Your task to perform on an android device: set the timer Image 0: 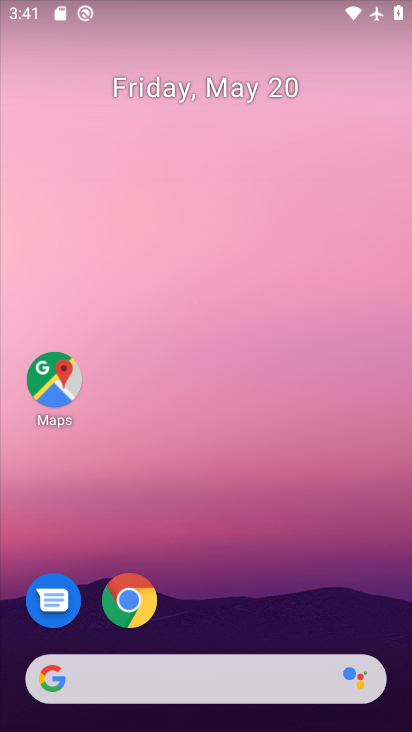
Step 0: drag from (249, 571) to (124, 0)
Your task to perform on an android device: set the timer Image 1: 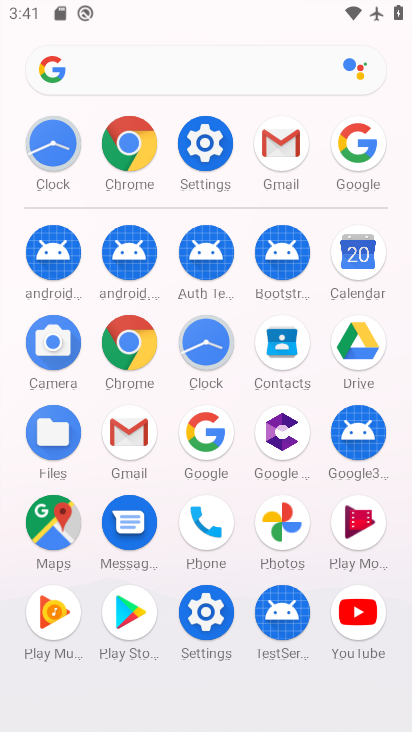
Step 1: click (211, 340)
Your task to perform on an android device: set the timer Image 2: 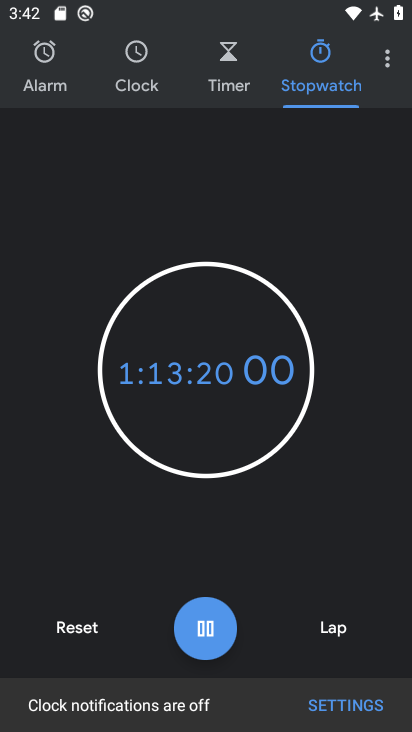
Step 2: click (244, 65)
Your task to perform on an android device: set the timer Image 3: 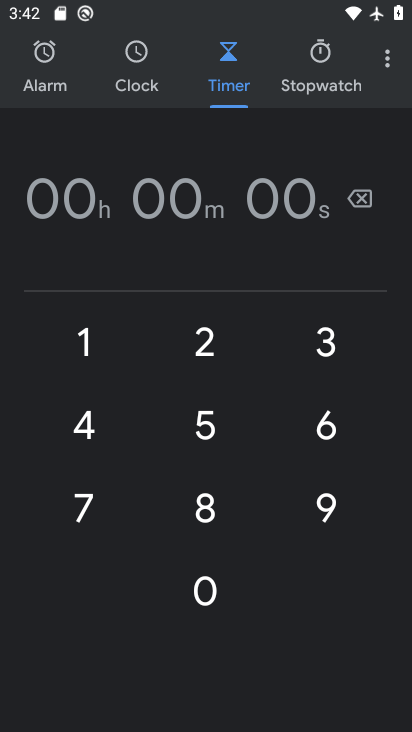
Step 3: click (88, 354)
Your task to perform on an android device: set the timer Image 4: 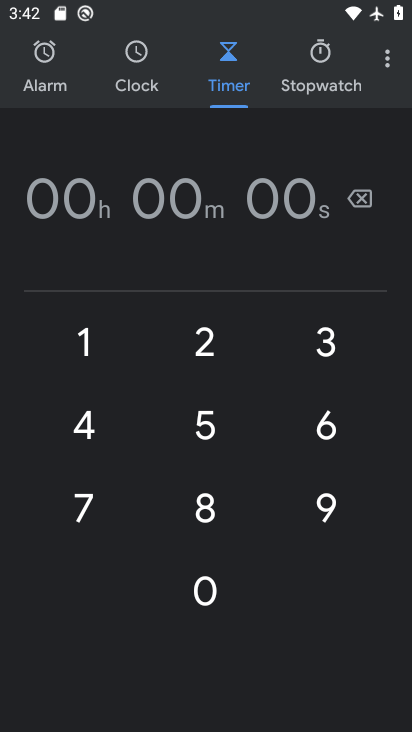
Step 4: click (88, 354)
Your task to perform on an android device: set the timer Image 5: 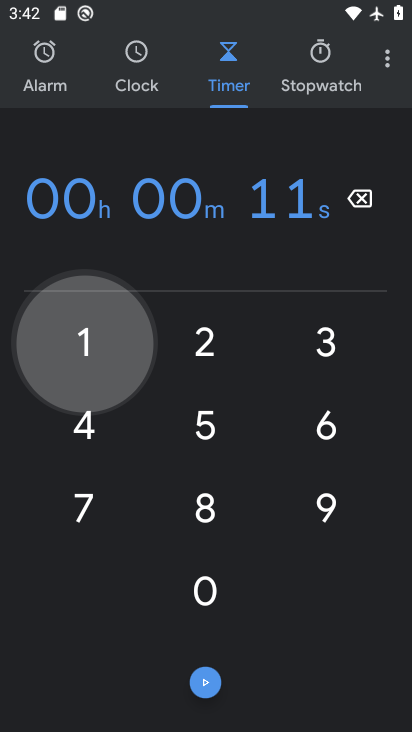
Step 5: click (88, 354)
Your task to perform on an android device: set the timer Image 6: 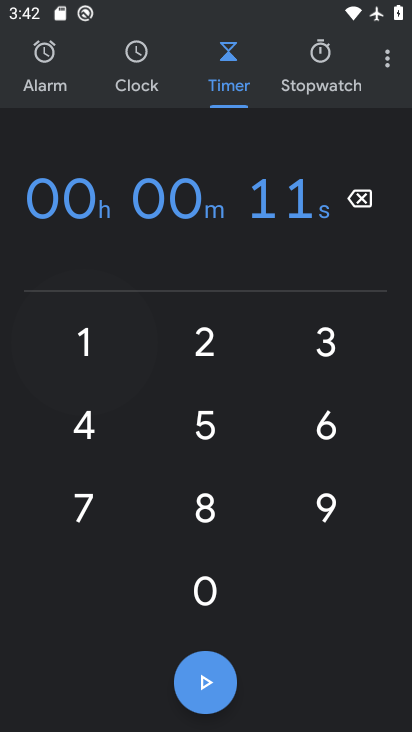
Step 6: click (88, 354)
Your task to perform on an android device: set the timer Image 7: 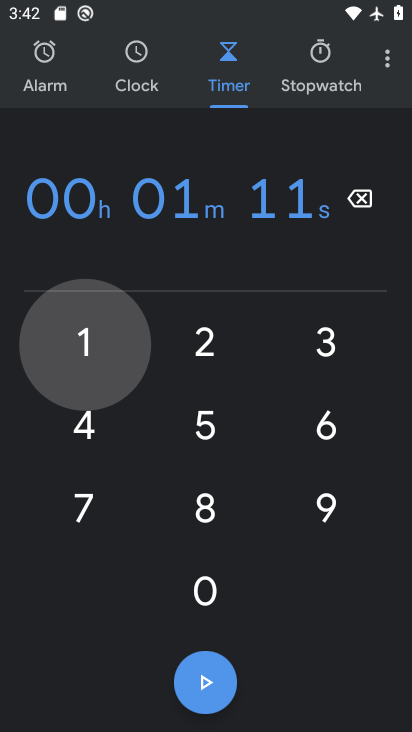
Step 7: click (88, 354)
Your task to perform on an android device: set the timer Image 8: 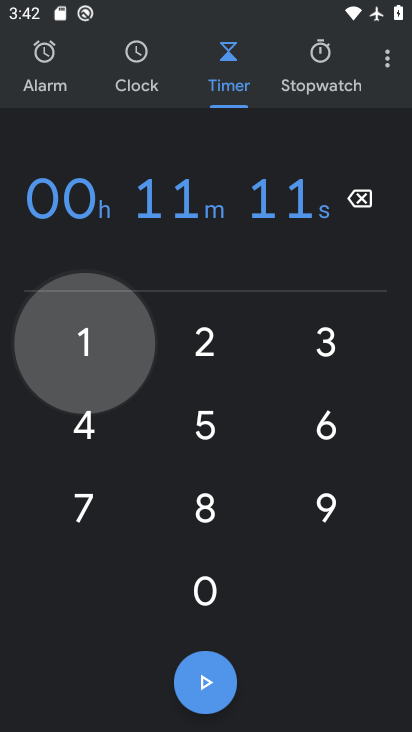
Step 8: click (88, 354)
Your task to perform on an android device: set the timer Image 9: 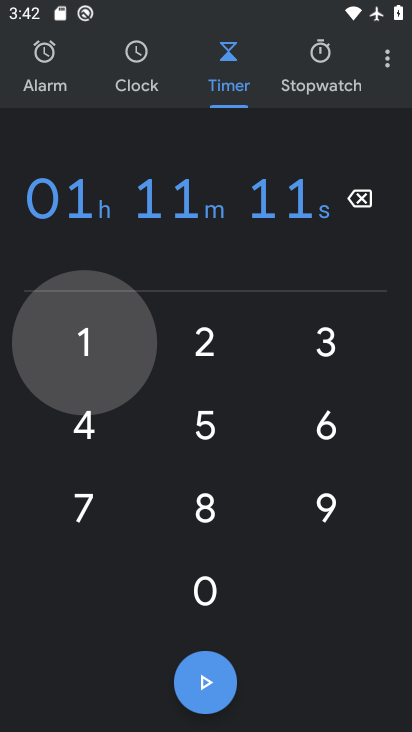
Step 9: click (88, 354)
Your task to perform on an android device: set the timer Image 10: 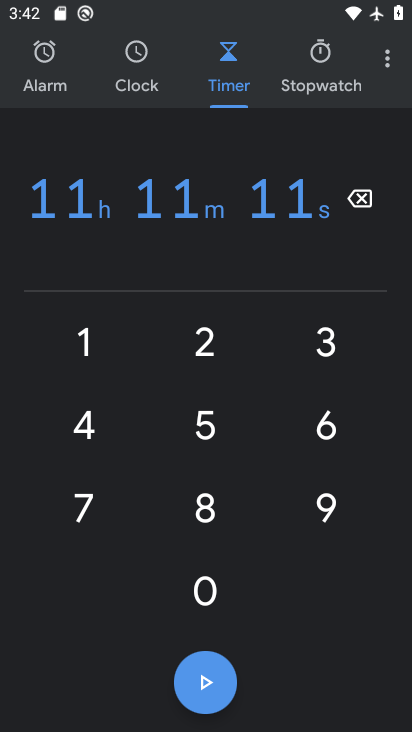
Step 10: click (218, 681)
Your task to perform on an android device: set the timer Image 11: 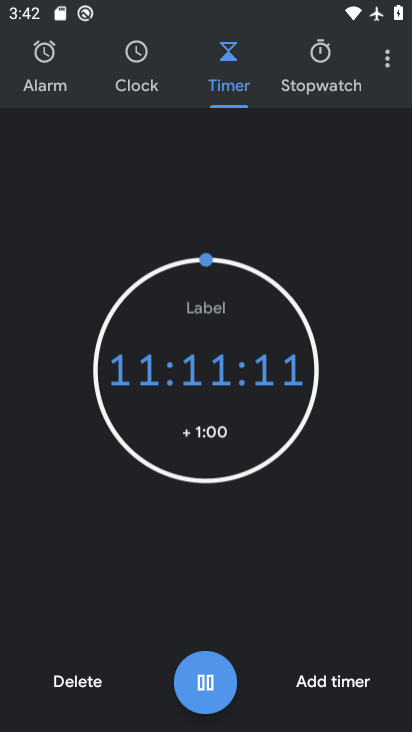
Step 11: task complete